Your task to perform on an android device: Check out the new ikea catalog. Image 0: 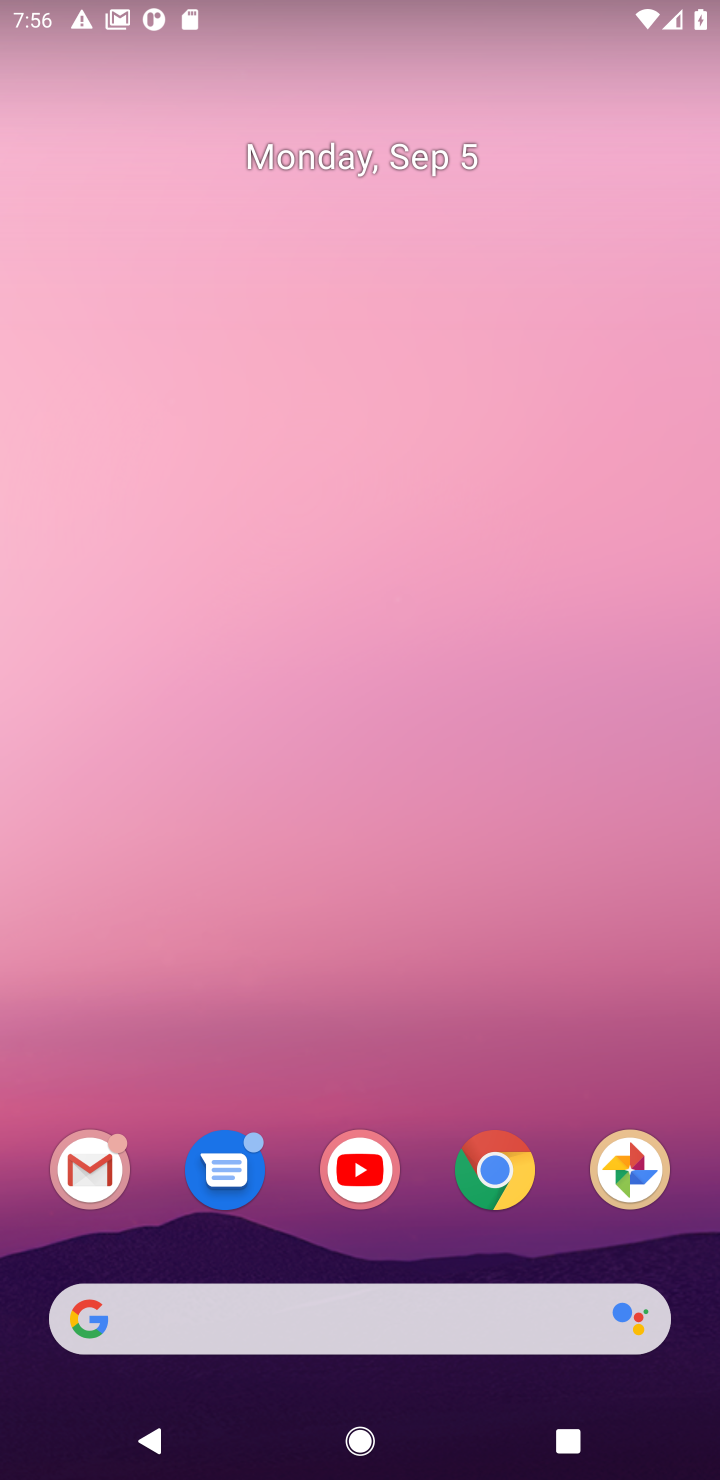
Step 0: click (486, 1183)
Your task to perform on an android device: Check out the new ikea catalog. Image 1: 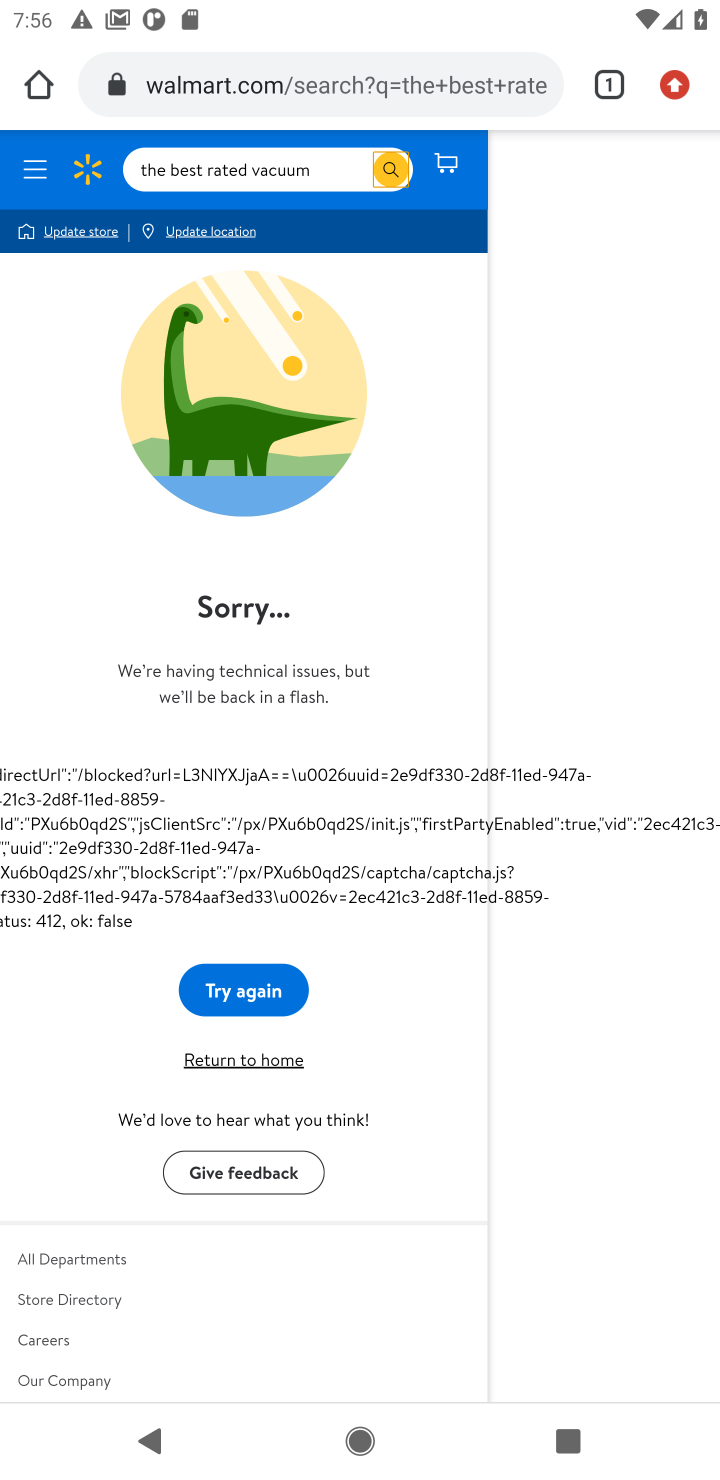
Step 1: click (382, 82)
Your task to perform on an android device: Check out the new ikea catalog. Image 2: 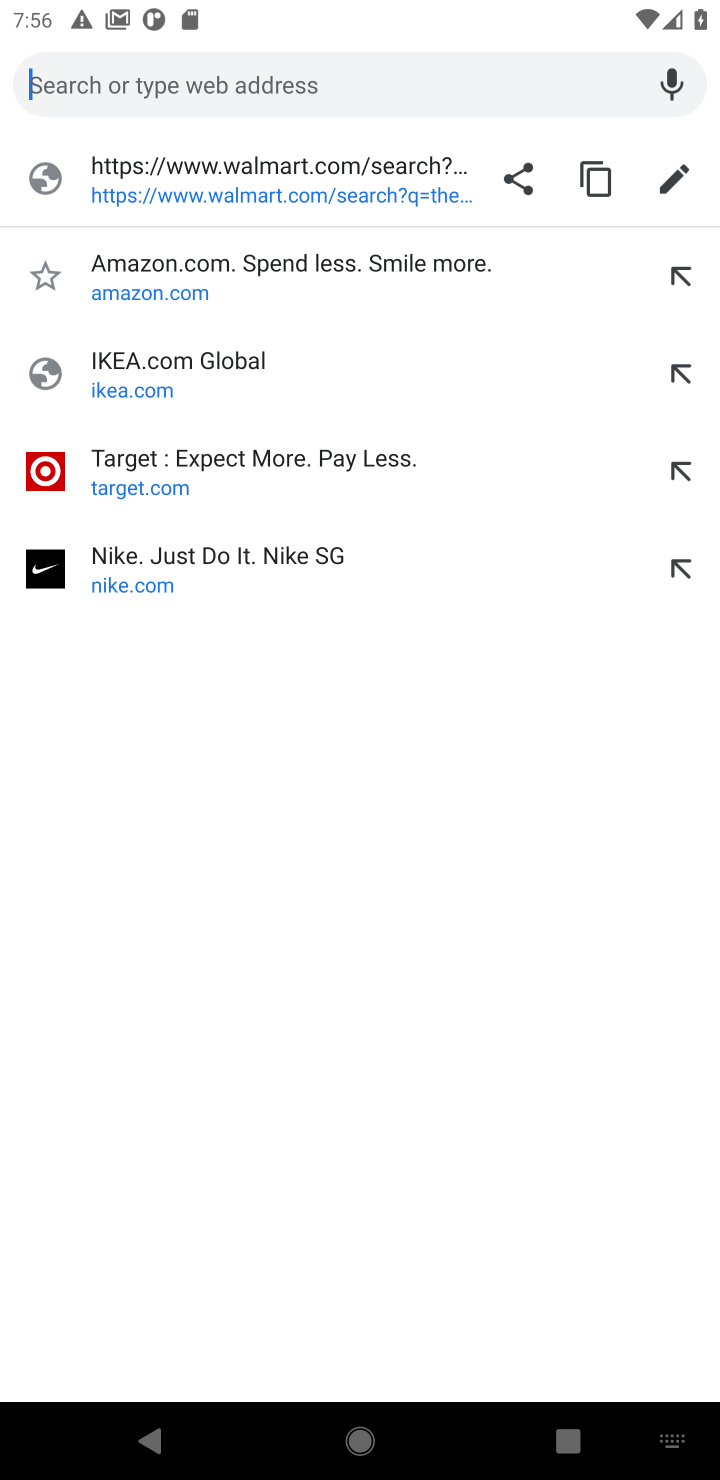
Step 2: type "the new ikea catalog"
Your task to perform on an android device: Check out the new ikea catalog. Image 3: 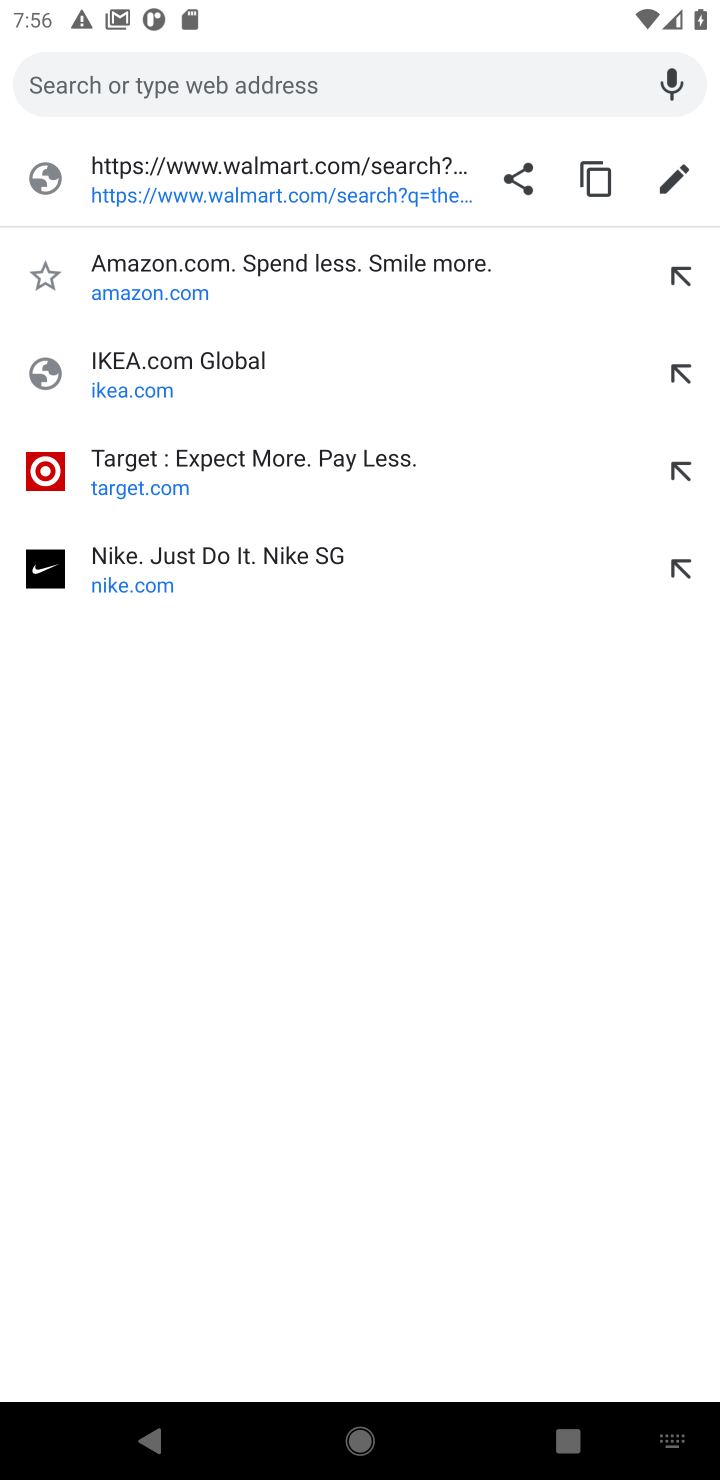
Step 3: click (322, 69)
Your task to perform on an android device: Check out the new ikea catalog. Image 4: 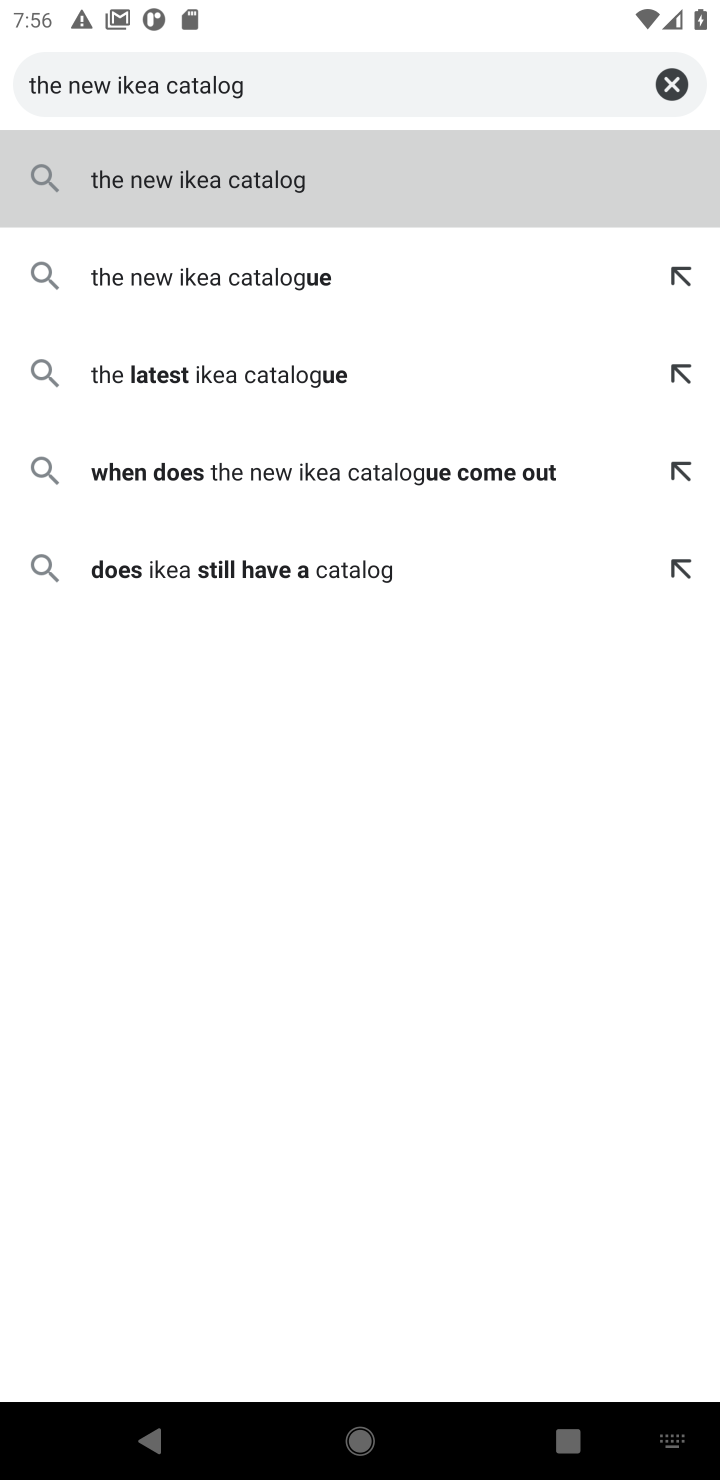
Step 4: click (253, 148)
Your task to perform on an android device: Check out the new ikea catalog. Image 5: 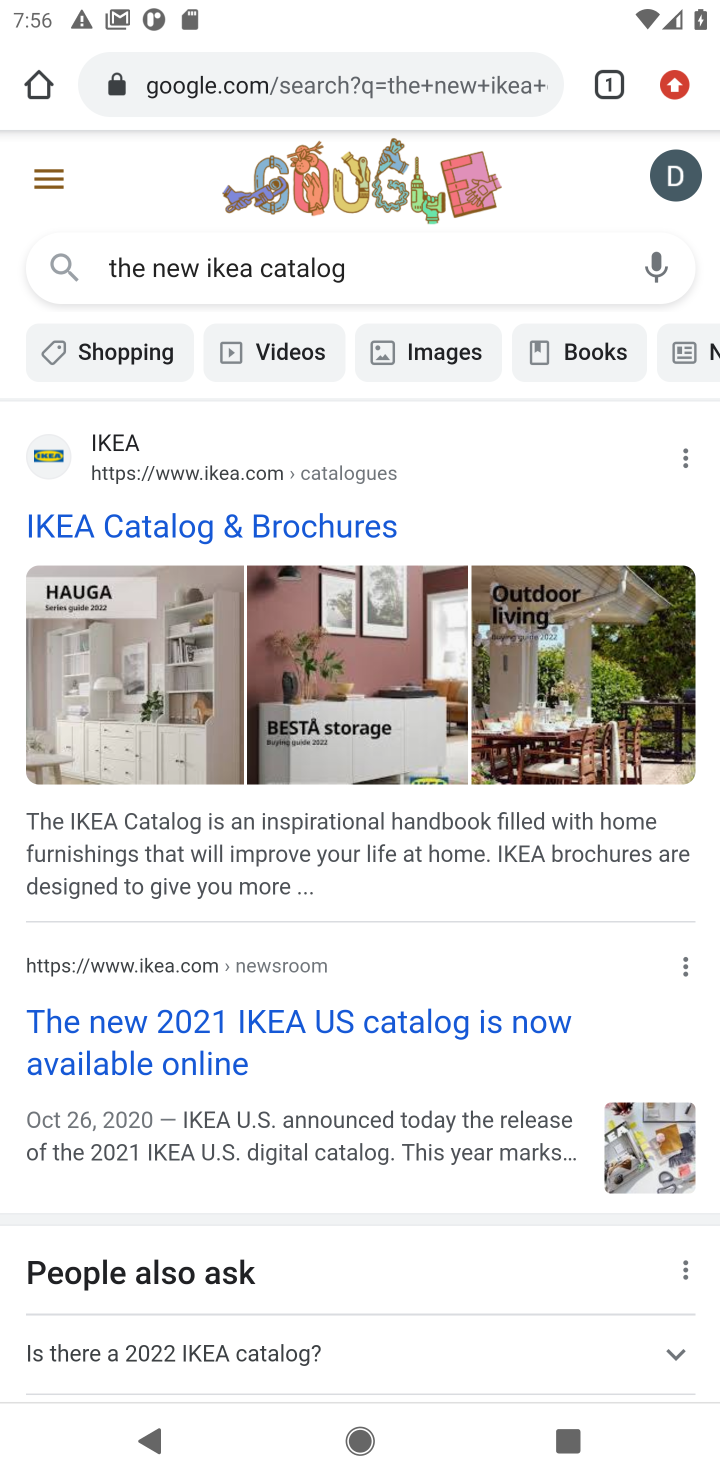
Step 5: task complete